Your task to perform on an android device: What's on my calendar today? Image 0: 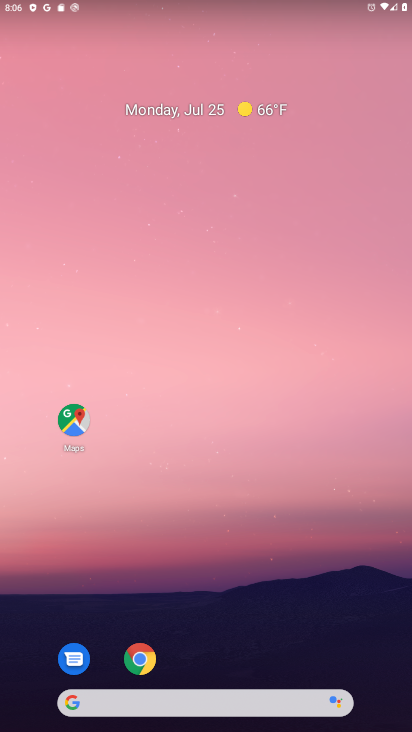
Step 0: click (229, 662)
Your task to perform on an android device: What's on my calendar today? Image 1: 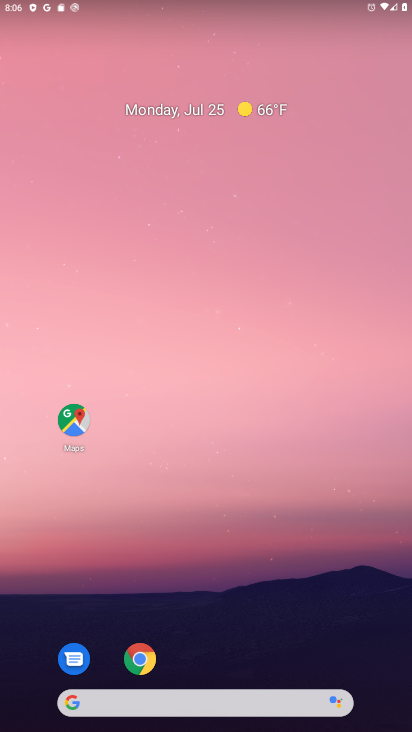
Step 1: drag from (229, 662) to (164, 133)
Your task to perform on an android device: What's on my calendar today? Image 2: 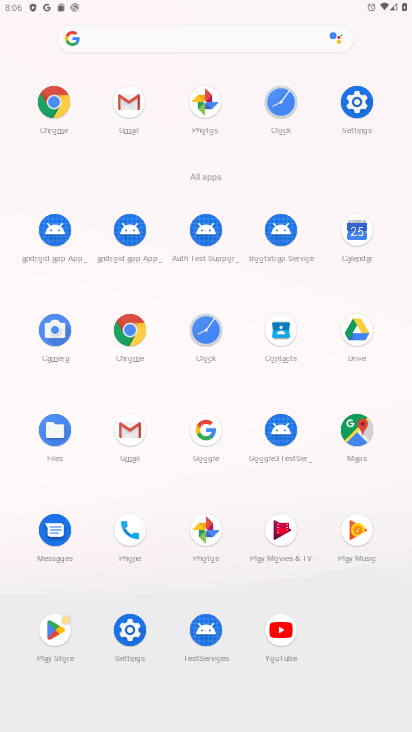
Step 2: click (347, 227)
Your task to perform on an android device: What's on my calendar today? Image 3: 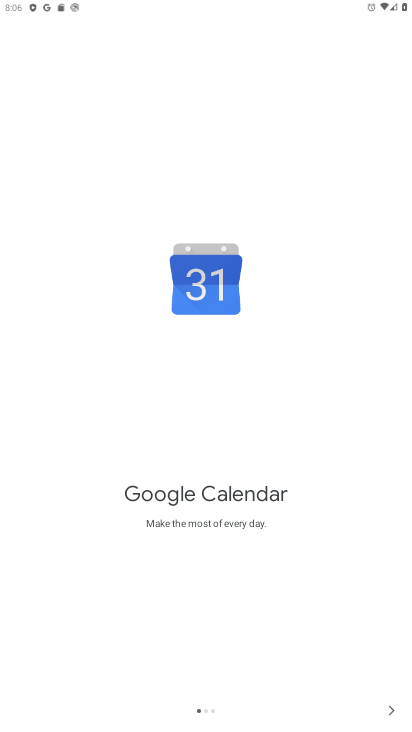
Step 3: click (390, 710)
Your task to perform on an android device: What's on my calendar today? Image 4: 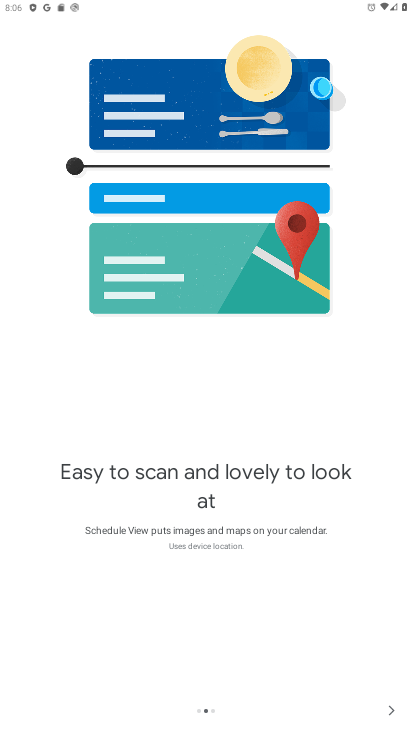
Step 4: click (390, 710)
Your task to perform on an android device: What's on my calendar today? Image 5: 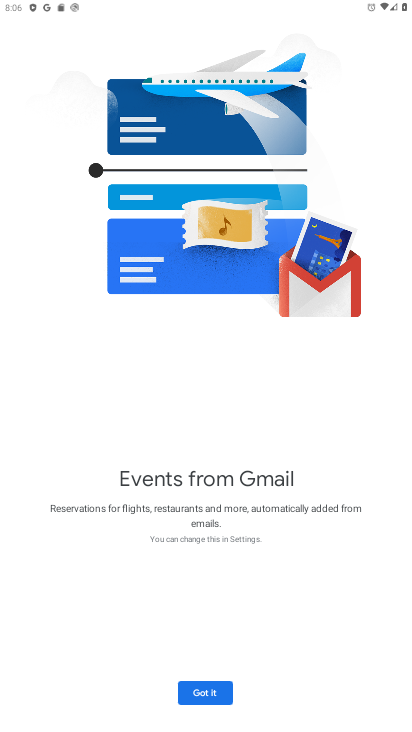
Step 5: click (202, 681)
Your task to perform on an android device: What's on my calendar today? Image 6: 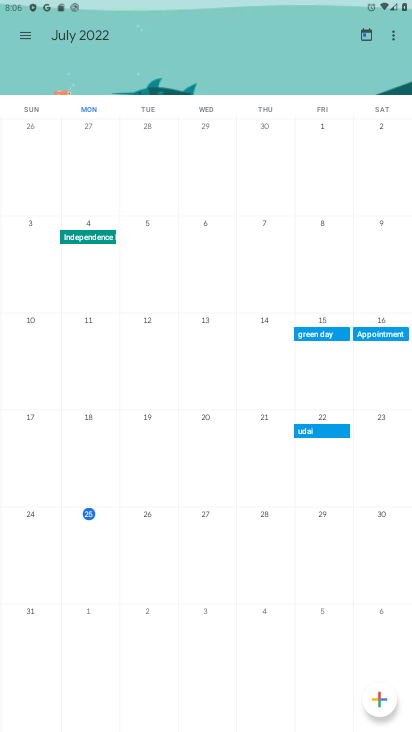
Step 6: click (84, 512)
Your task to perform on an android device: What's on my calendar today? Image 7: 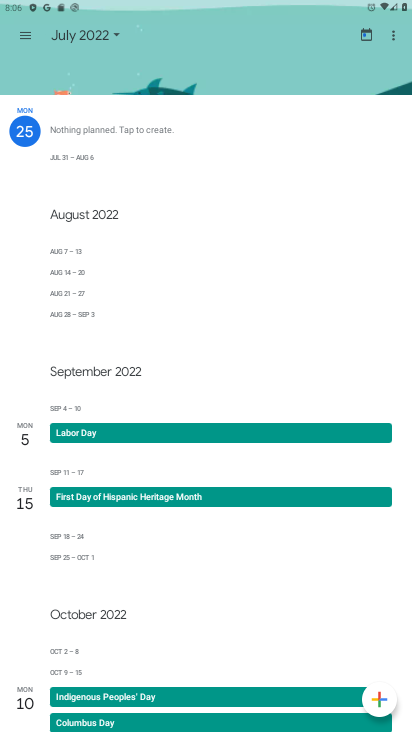
Step 7: task complete